Your task to perform on an android device: What's the weather going to be this weekend? Image 0: 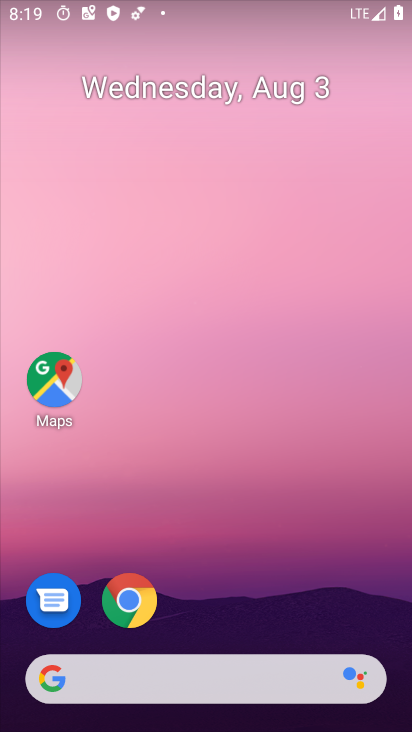
Step 0: click (200, 684)
Your task to perform on an android device: What's the weather going to be this weekend? Image 1: 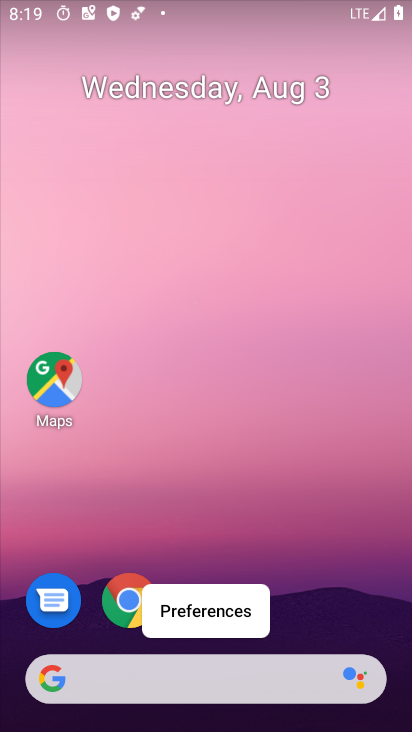
Step 1: click (159, 671)
Your task to perform on an android device: What's the weather going to be this weekend? Image 2: 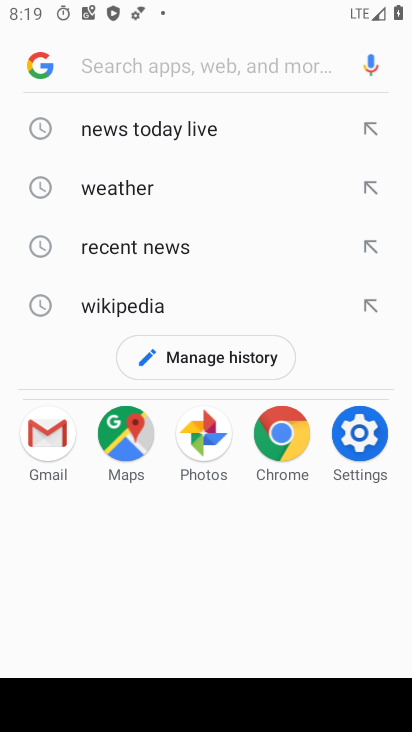
Step 2: click (140, 192)
Your task to perform on an android device: What's the weather going to be this weekend? Image 3: 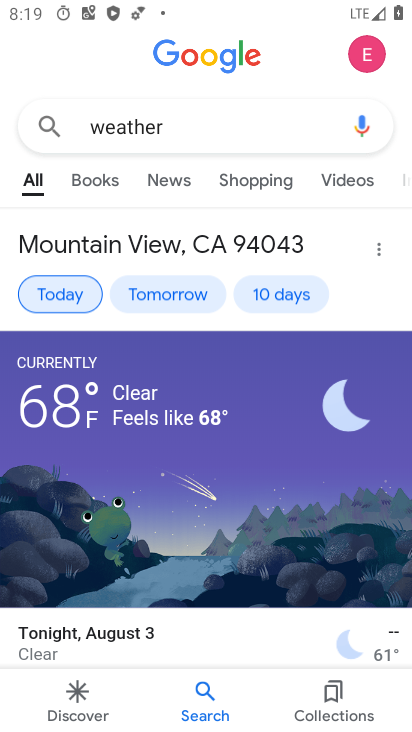
Step 3: click (278, 296)
Your task to perform on an android device: What's the weather going to be this weekend? Image 4: 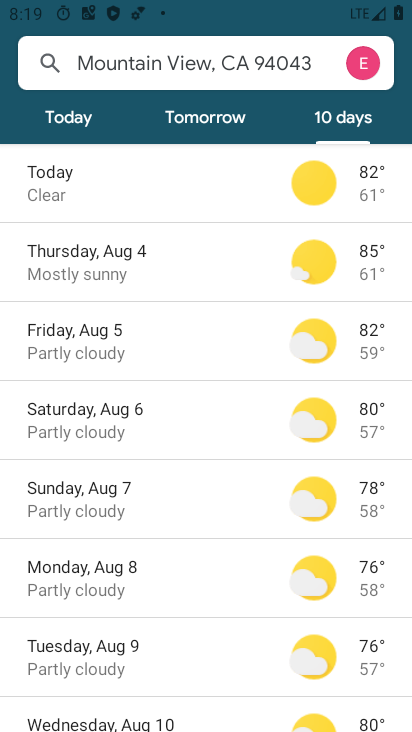
Step 4: task complete